Your task to perform on an android device: empty trash in the gmail app Image 0: 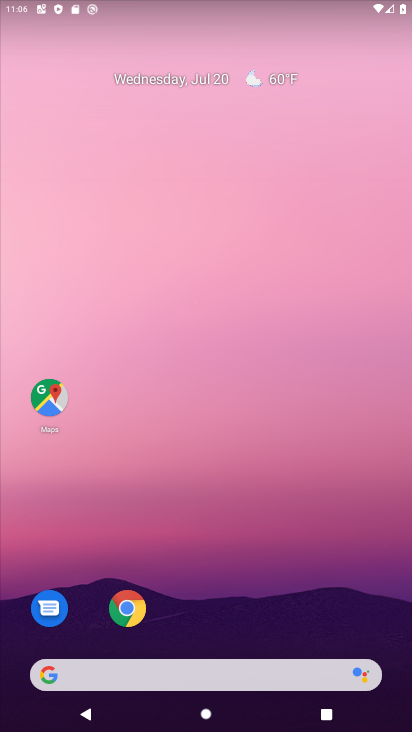
Step 0: drag from (283, 602) to (323, 20)
Your task to perform on an android device: empty trash in the gmail app Image 1: 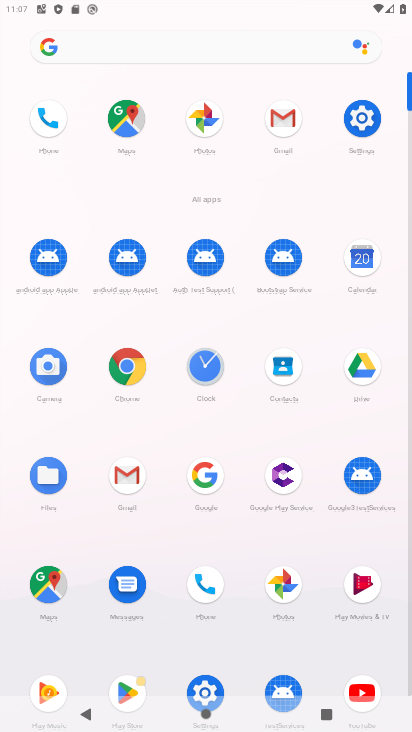
Step 1: click (117, 482)
Your task to perform on an android device: empty trash in the gmail app Image 2: 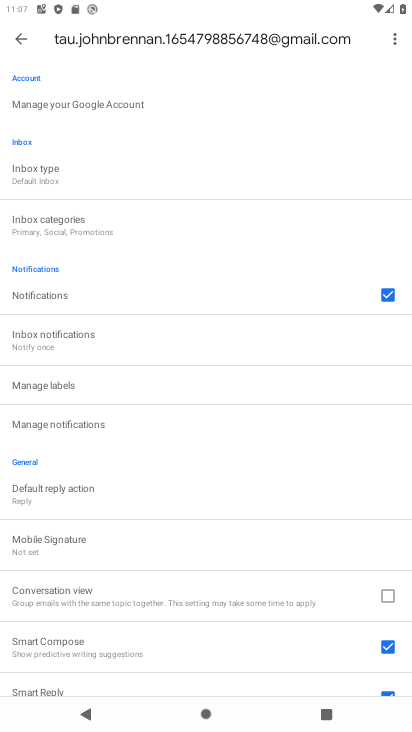
Step 2: press home button
Your task to perform on an android device: empty trash in the gmail app Image 3: 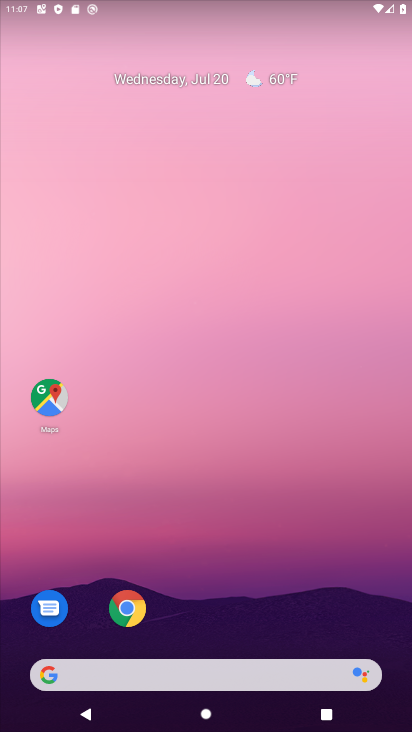
Step 3: drag from (252, 592) to (235, 53)
Your task to perform on an android device: empty trash in the gmail app Image 4: 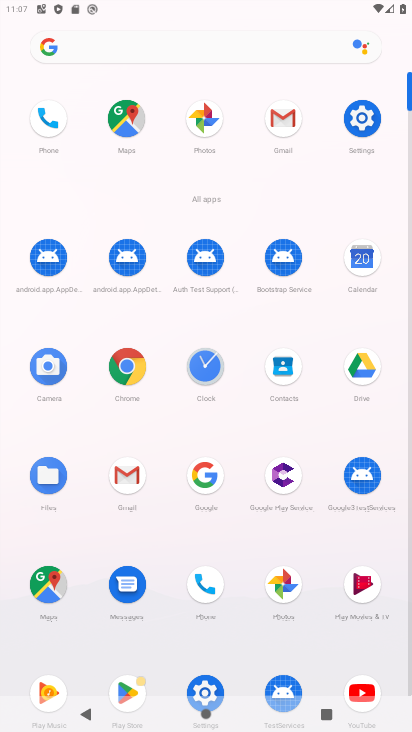
Step 4: click (287, 123)
Your task to perform on an android device: empty trash in the gmail app Image 5: 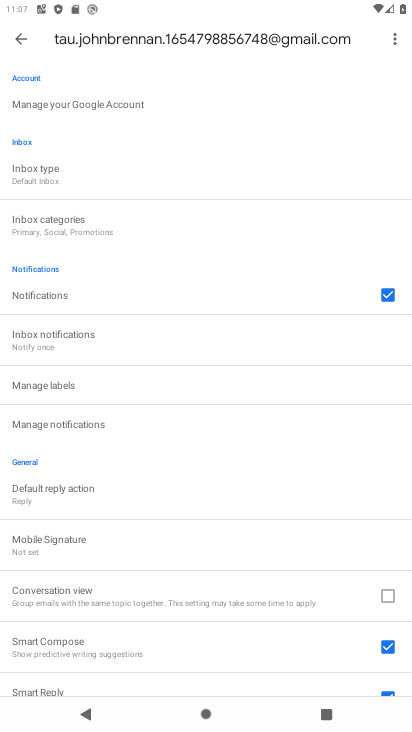
Step 5: click (15, 31)
Your task to perform on an android device: empty trash in the gmail app Image 6: 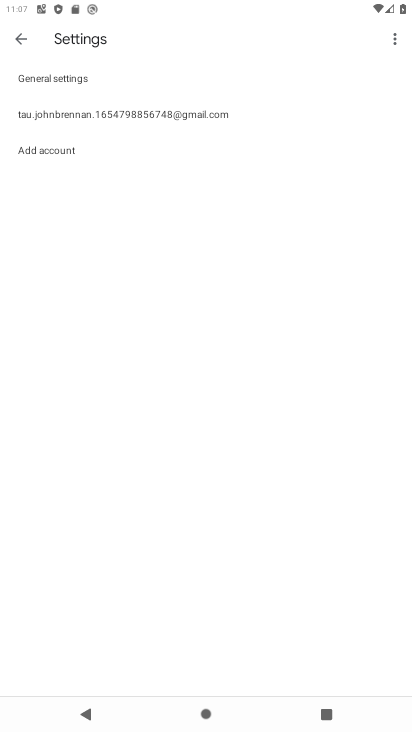
Step 6: click (15, 31)
Your task to perform on an android device: empty trash in the gmail app Image 7: 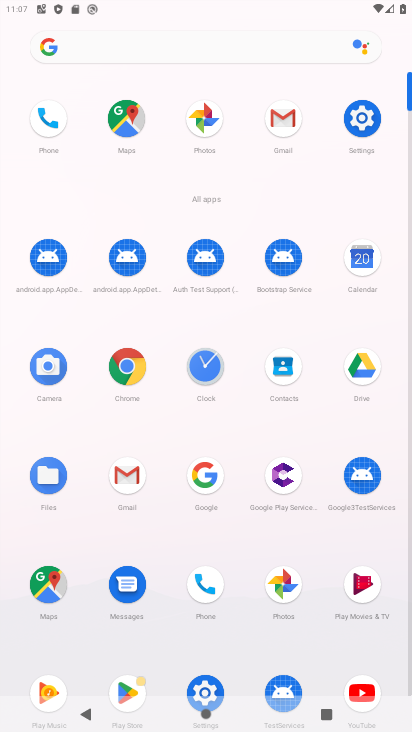
Step 7: click (119, 480)
Your task to perform on an android device: empty trash in the gmail app Image 8: 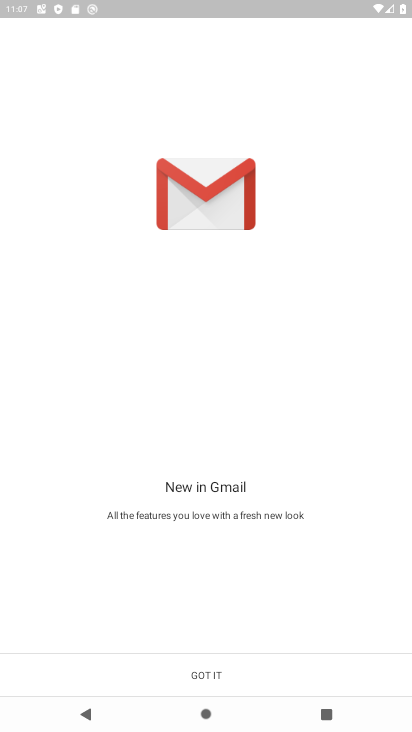
Step 8: click (185, 676)
Your task to perform on an android device: empty trash in the gmail app Image 9: 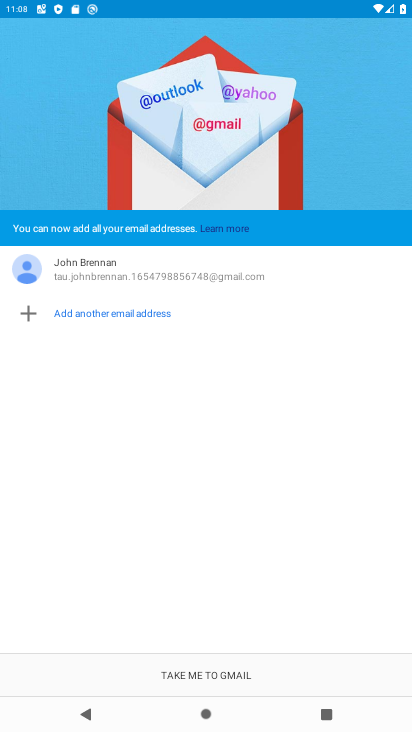
Step 9: click (185, 676)
Your task to perform on an android device: empty trash in the gmail app Image 10: 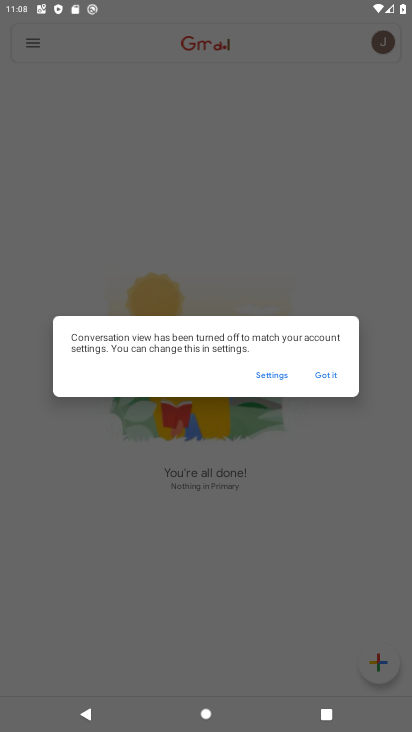
Step 10: click (328, 376)
Your task to perform on an android device: empty trash in the gmail app Image 11: 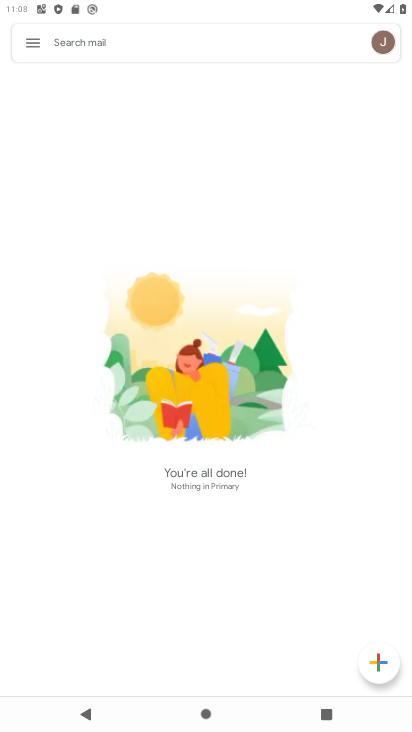
Step 11: click (36, 45)
Your task to perform on an android device: empty trash in the gmail app Image 12: 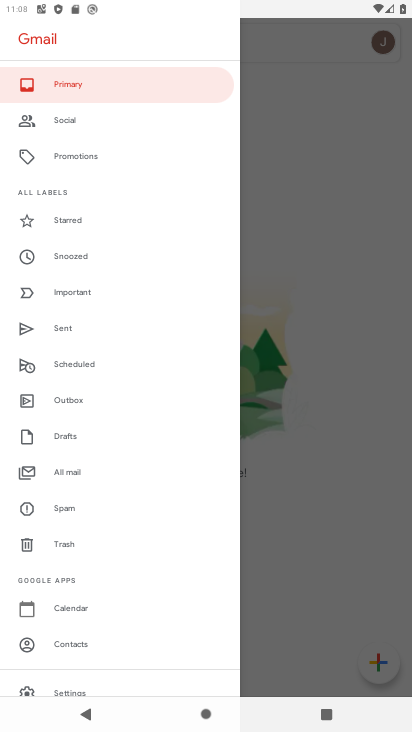
Step 12: click (72, 543)
Your task to perform on an android device: empty trash in the gmail app Image 13: 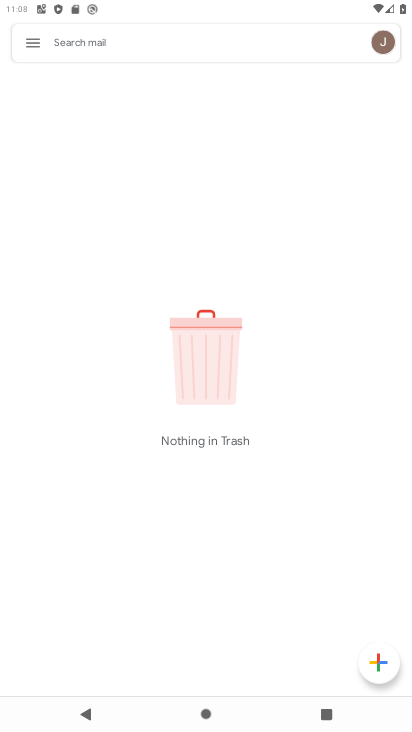
Step 13: task complete